Your task to perform on an android device: Open calendar and show me the second week of next month Image 0: 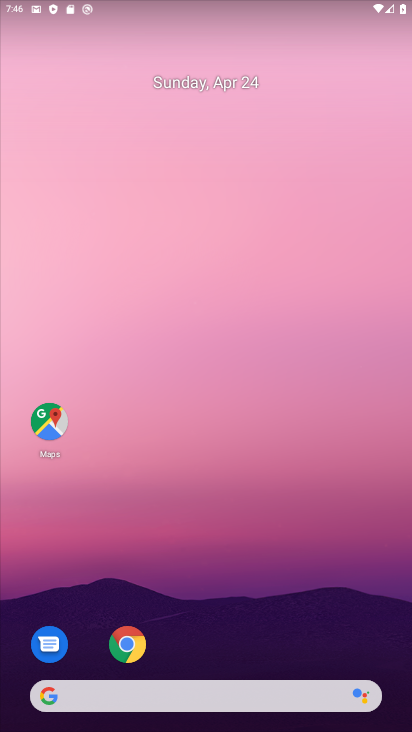
Step 0: click (133, 645)
Your task to perform on an android device: Open calendar and show me the second week of next month Image 1: 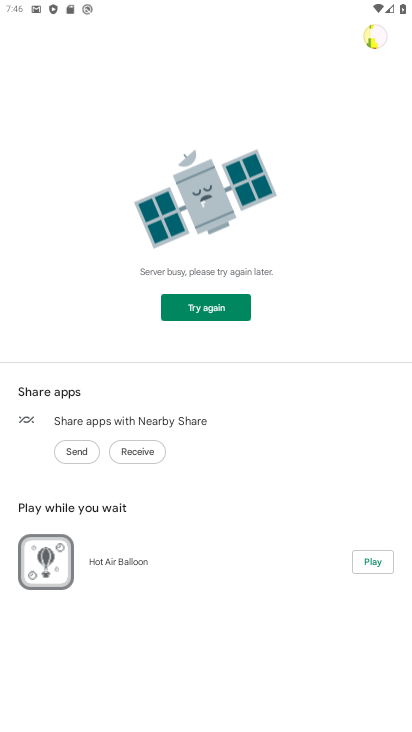
Step 1: press home button
Your task to perform on an android device: Open calendar and show me the second week of next month Image 2: 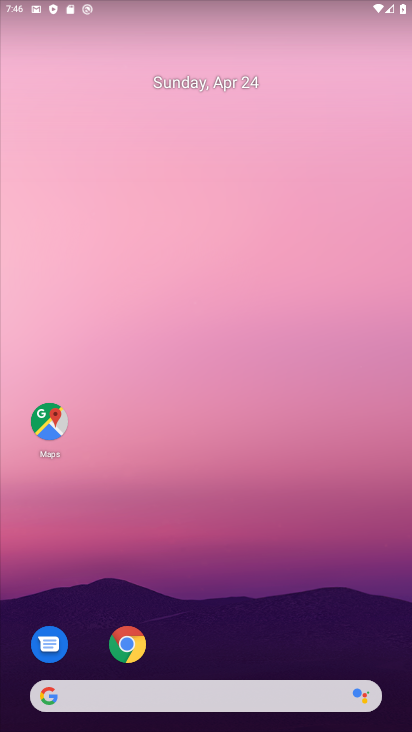
Step 2: drag from (190, 689) to (218, 101)
Your task to perform on an android device: Open calendar and show me the second week of next month Image 3: 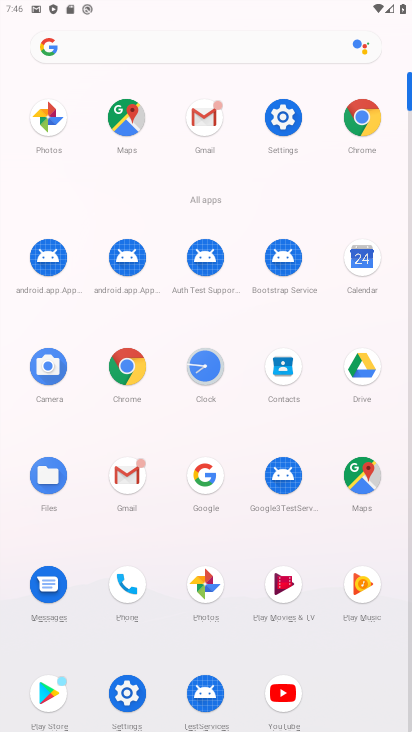
Step 3: click (368, 263)
Your task to perform on an android device: Open calendar and show me the second week of next month Image 4: 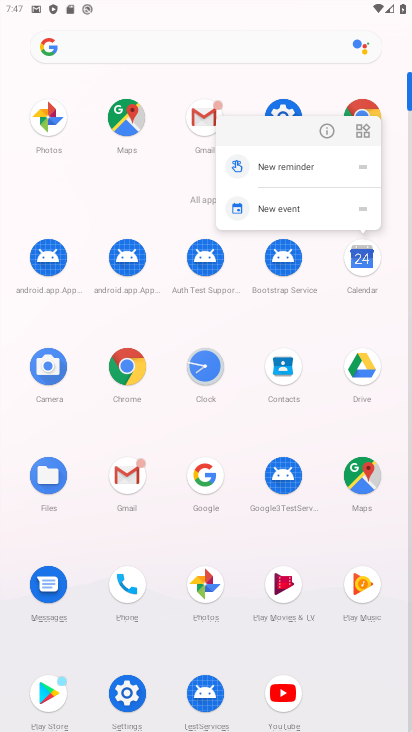
Step 4: click (354, 266)
Your task to perform on an android device: Open calendar and show me the second week of next month Image 5: 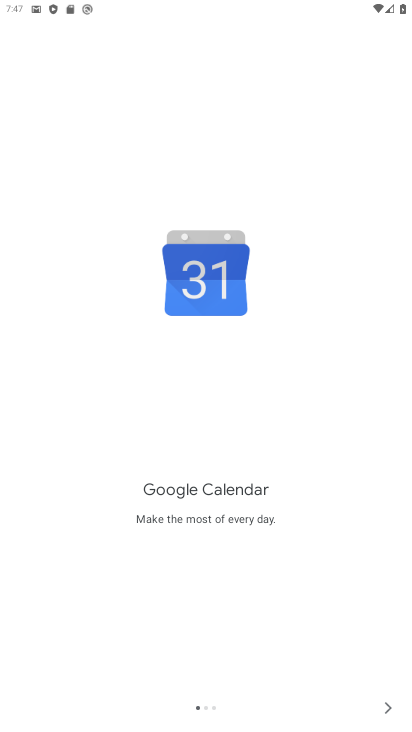
Step 5: click (385, 715)
Your task to perform on an android device: Open calendar and show me the second week of next month Image 6: 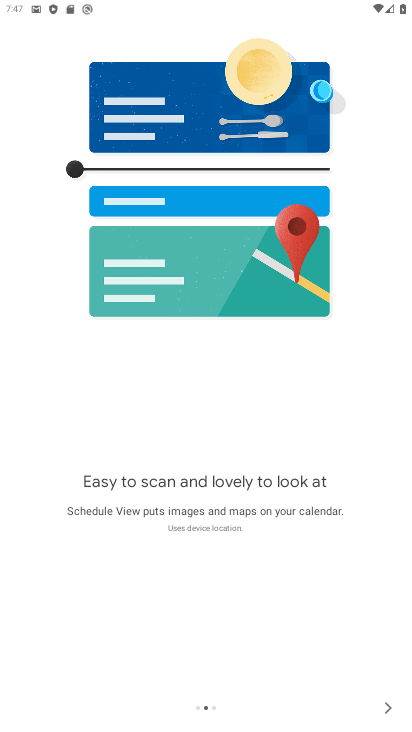
Step 6: click (385, 715)
Your task to perform on an android device: Open calendar and show me the second week of next month Image 7: 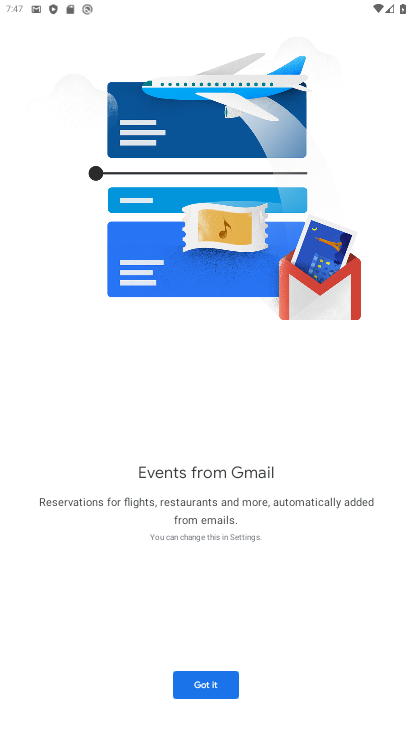
Step 7: click (221, 681)
Your task to perform on an android device: Open calendar and show me the second week of next month Image 8: 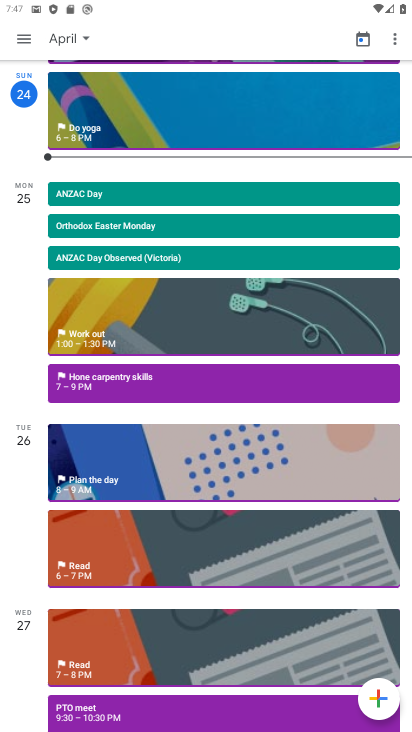
Step 8: click (16, 44)
Your task to perform on an android device: Open calendar and show me the second week of next month Image 9: 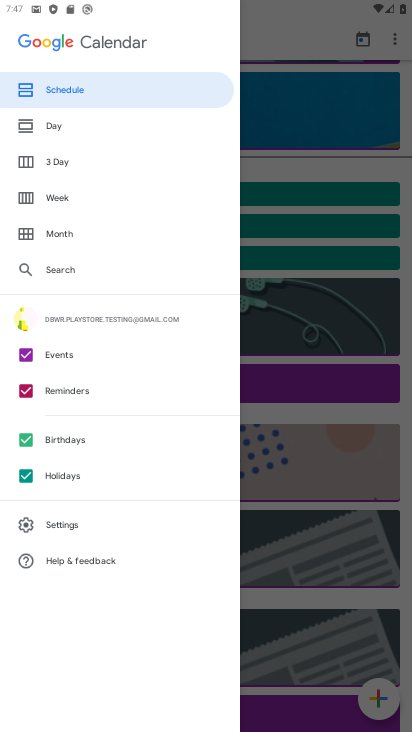
Step 9: click (65, 239)
Your task to perform on an android device: Open calendar and show me the second week of next month Image 10: 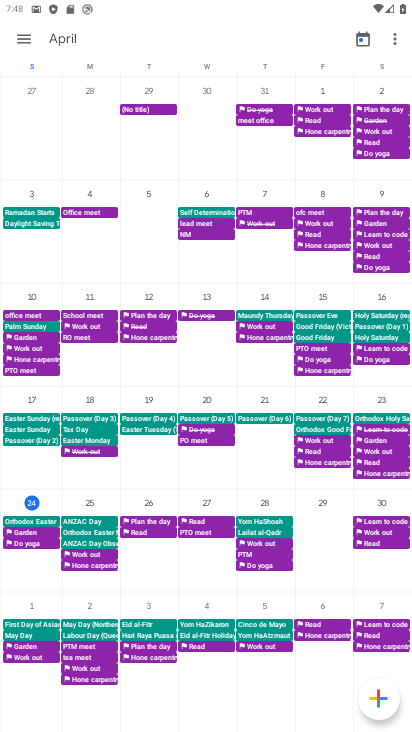
Step 10: task complete